Your task to perform on an android device: Is it going to rain this weekend? Image 0: 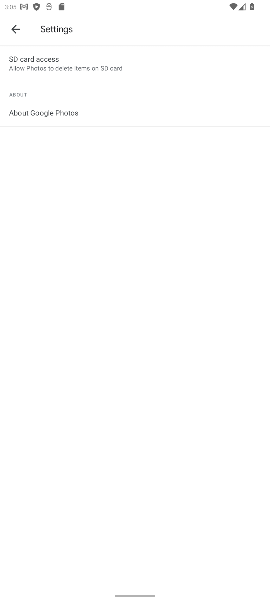
Step 0: press home button
Your task to perform on an android device: Is it going to rain this weekend? Image 1: 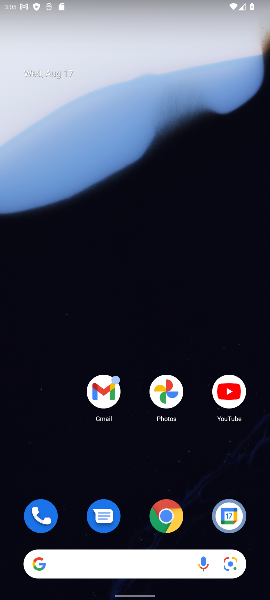
Step 1: drag from (129, 561) to (139, 313)
Your task to perform on an android device: Is it going to rain this weekend? Image 2: 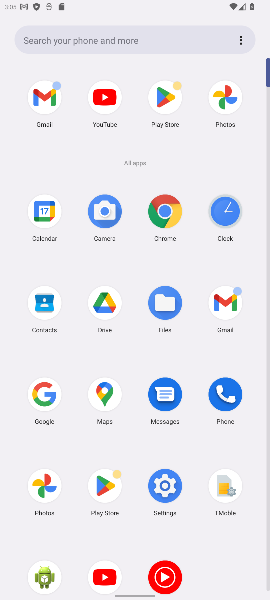
Step 2: click (42, 393)
Your task to perform on an android device: Is it going to rain this weekend? Image 3: 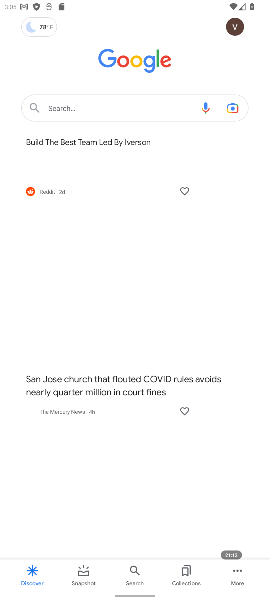
Step 3: click (111, 105)
Your task to perform on an android device: Is it going to rain this weekend? Image 4: 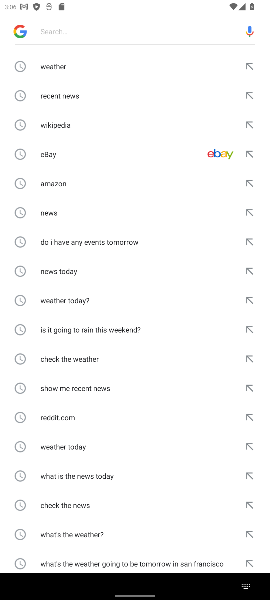
Step 4: type "Is it going to rain this weekend?"
Your task to perform on an android device: Is it going to rain this weekend? Image 5: 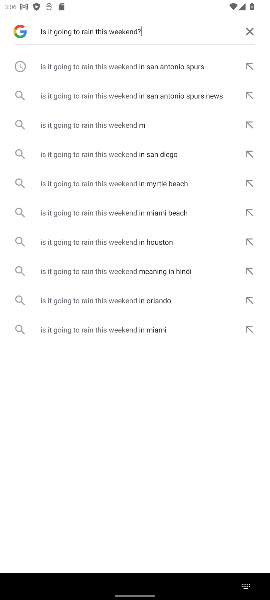
Step 5: click (160, 158)
Your task to perform on an android device: Is it going to rain this weekend? Image 6: 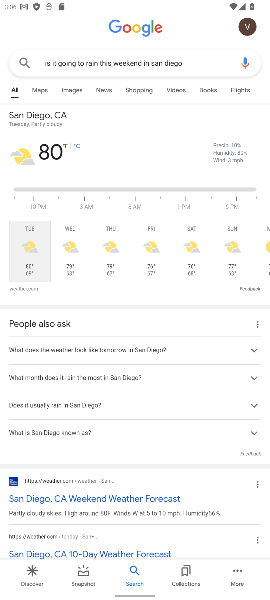
Step 6: click (191, 247)
Your task to perform on an android device: Is it going to rain this weekend? Image 7: 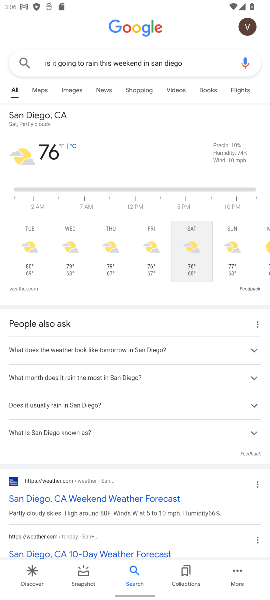
Step 7: task complete